Your task to perform on an android device: Go to ESPN.com Image 0: 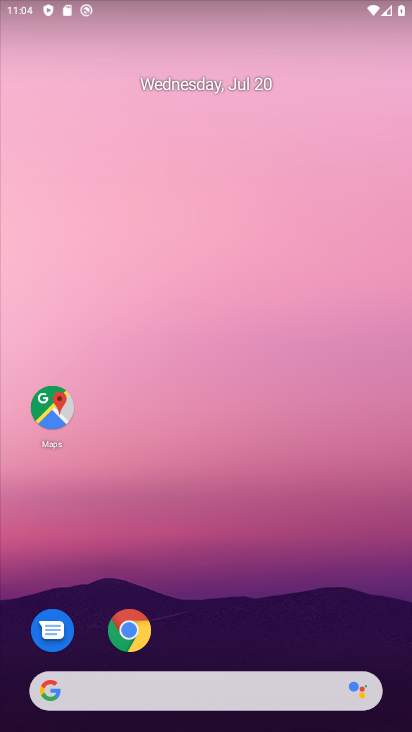
Step 0: click (124, 623)
Your task to perform on an android device: Go to ESPN.com Image 1: 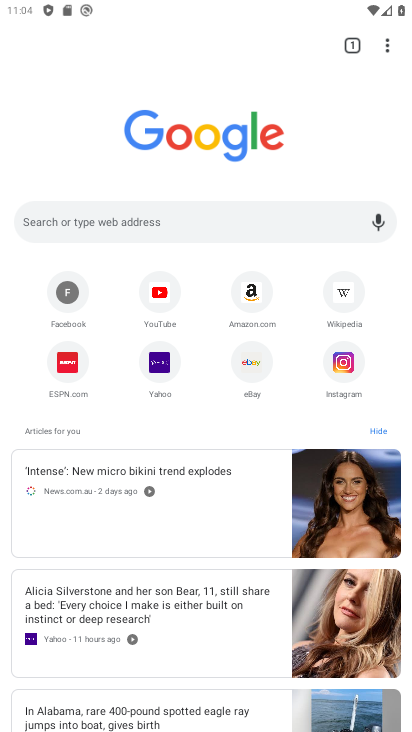
Step 1: click (70, 377)
Your task to perform on an android device: Go to ESPN.com Image 2: 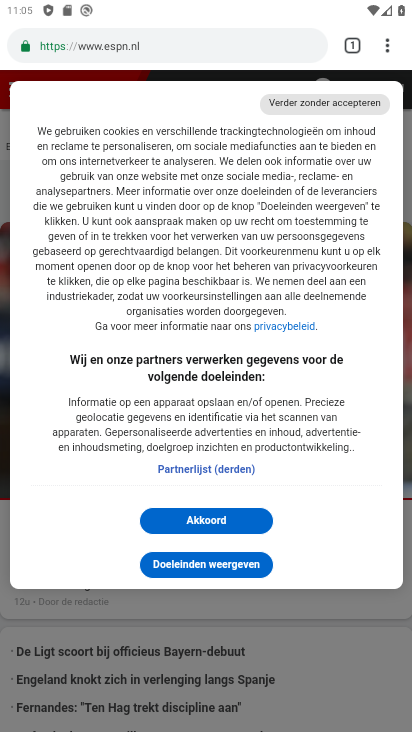
Step 2: click (190, 512)
Your task to perform on an android device: Go to ESPN.com Image 3: 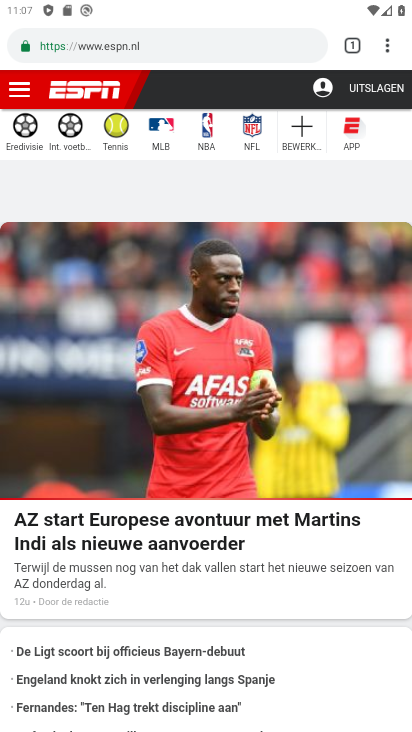
Step 3: task complete